Your task to perform on an android device: find photos in the google photos app Image 0: 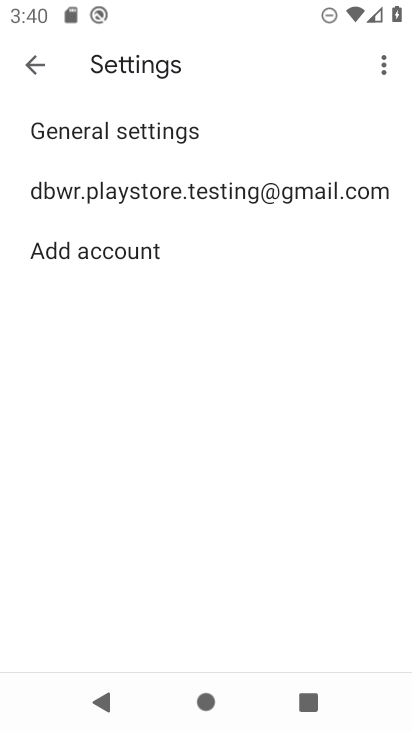
Step 0: click (378, 559)
Your task to perform on an android device: find photos in the google photos app Image 1: 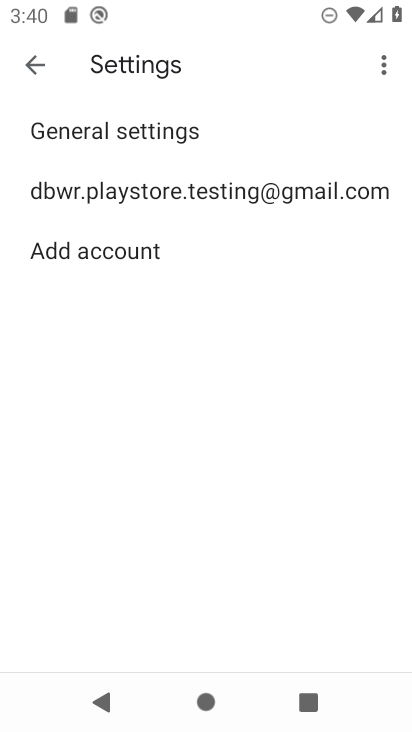
Step 1: press home button
Your task to perform on an android device: find photos in the google photos app Image 2: 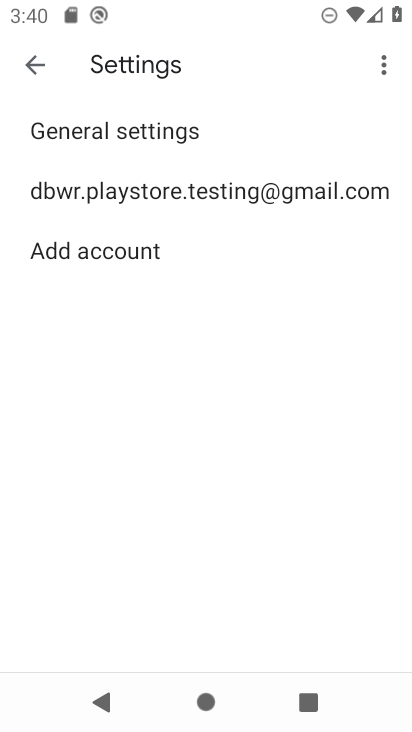
Step 2: click (391, 545)
Your task to perform on an android device: find photos in the google photos app Image 3: 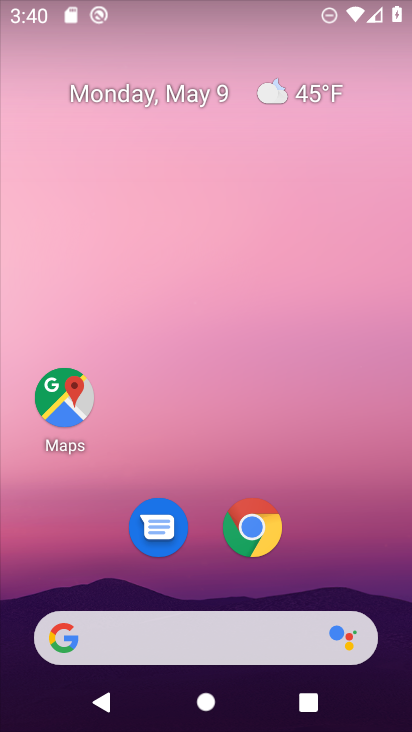
Step 3: drag from (395, 597) to (299, 191)
Your task to perform on an android device: find photos in the google photos app Image 4: 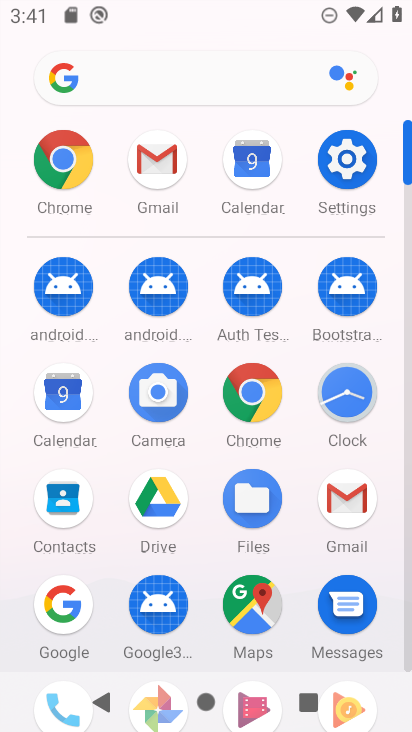
Step 4: click (407, 654)
Your task to perform on an android device: find photos in the google photos app Image 5: 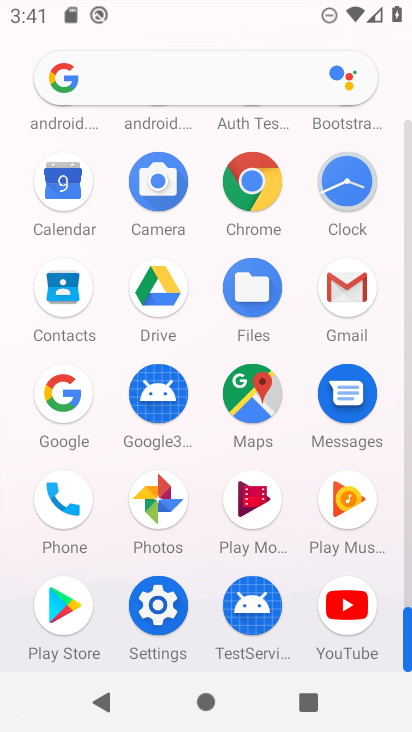
Step 5: click (175, 522)
Your task to perform on an android device: find photos in the google photos app Image 6: 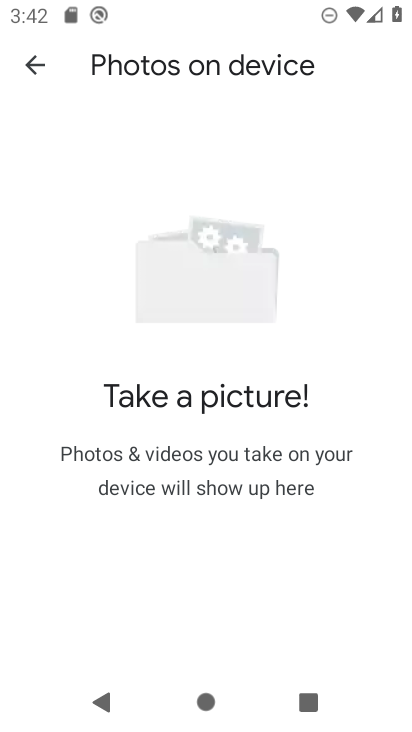
Step 6: click (35, 67)
Your task to perform on an android device: find photos in the google photos app Image 7: 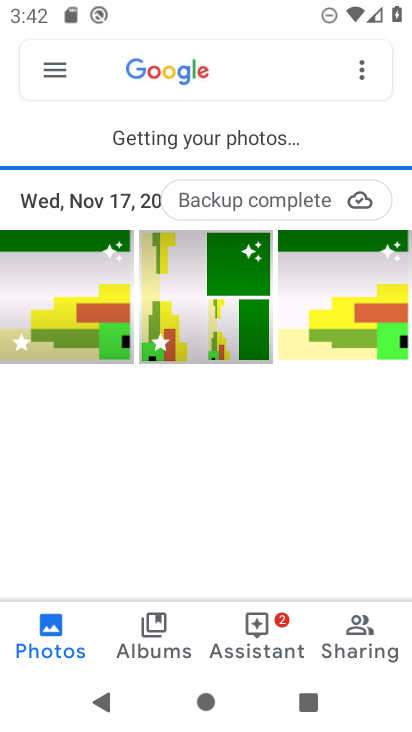
Step 7: task complete